Your task to perform on an android device: Open battery settings Image 0: 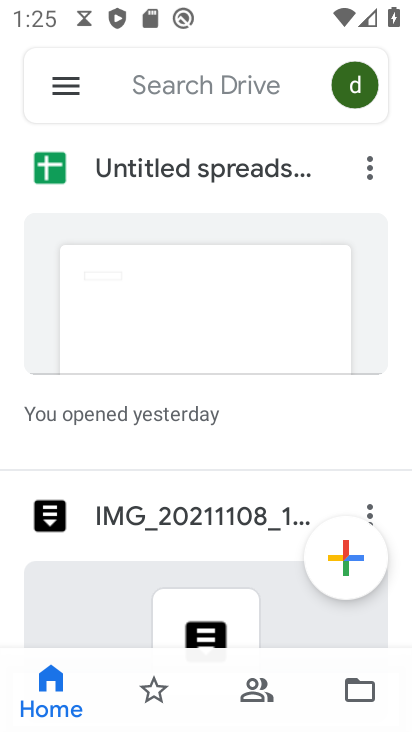
Step 0: press back button
Your task to perform on an android device: Open battery settings Image 1: 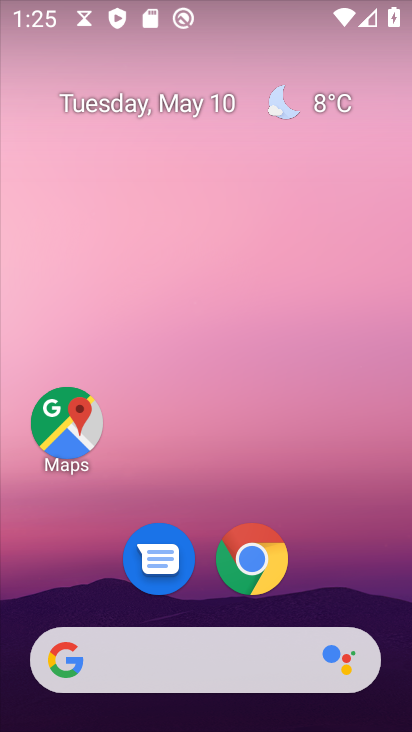
Step 1: drag from (193, 602) to (290, 69)
Your task to perform on an android device: Open battery settings Image 2: 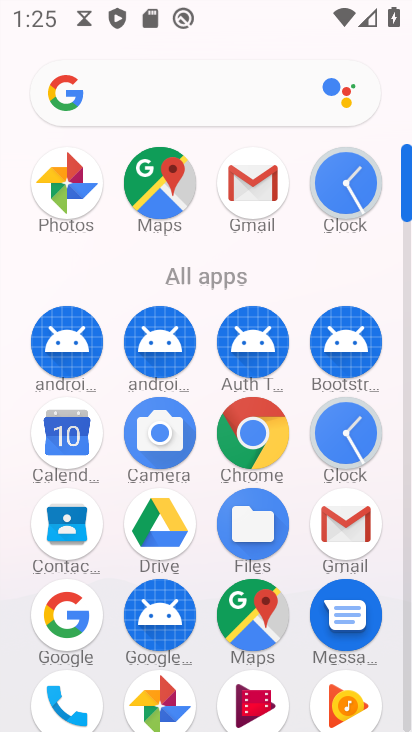
Step 2: drag from (176, 624) to (240, 423)
Your task to perform on an android device: Open battery settings Image 3: 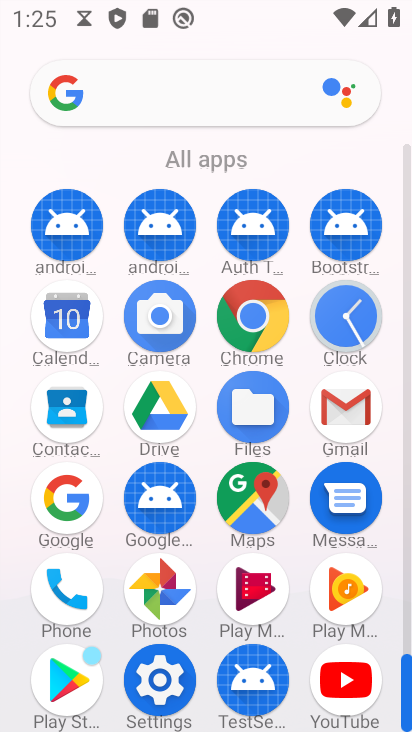
Step 3: click (164, 678)
Your task to perform on an android device: Open battery settings Image 4: 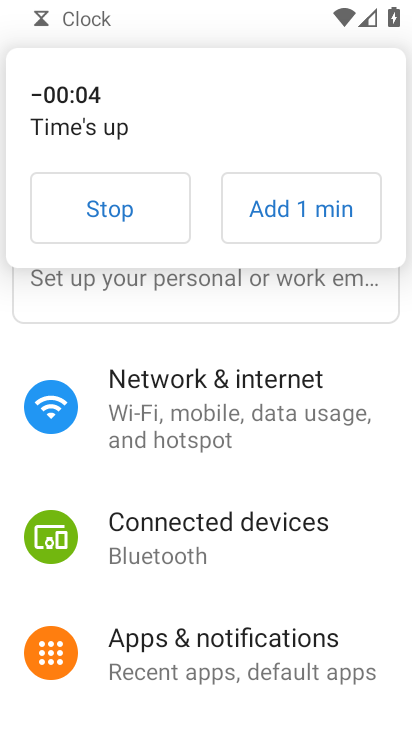
Step 4: drag from (159, 662) to (251, 366)
Your task to perform on an android device: Open battery settings Image 5: 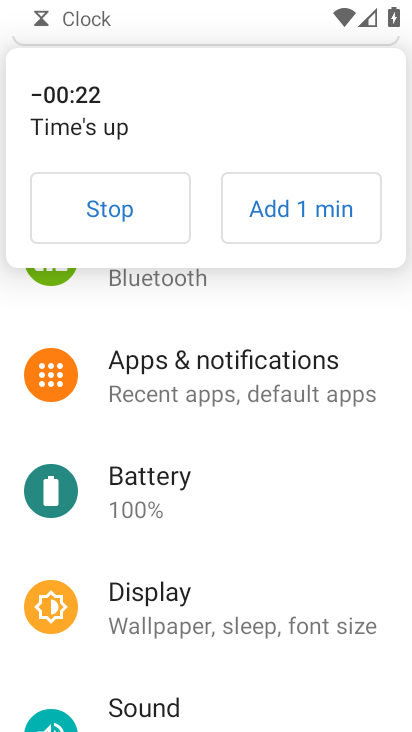
Step 5: drag from (198, 702) to (307, 294)
Your task to perform on an android device: Open battery settings Image 6: 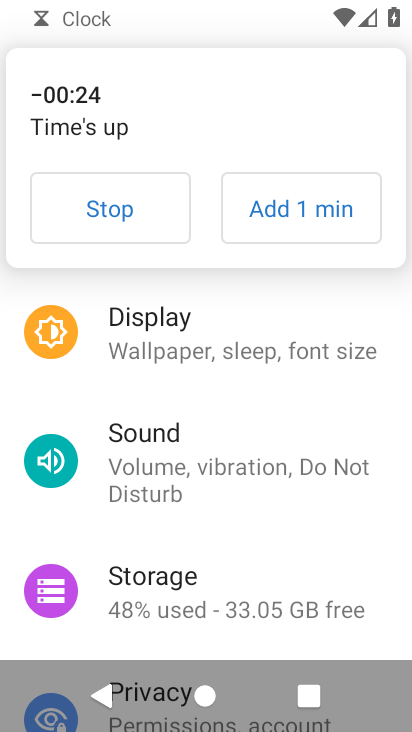
Step 6: drag from (194, 602) to (276, 292)
Your task to perform on an android device: Open battery settings Image 7: 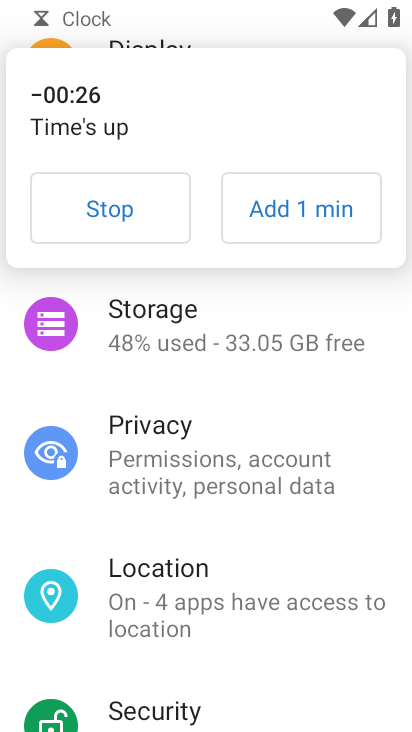
Step 7: drag from (155, 636) to (211, 655)
Your task to perform on an android device: Open battery settings Image 8: 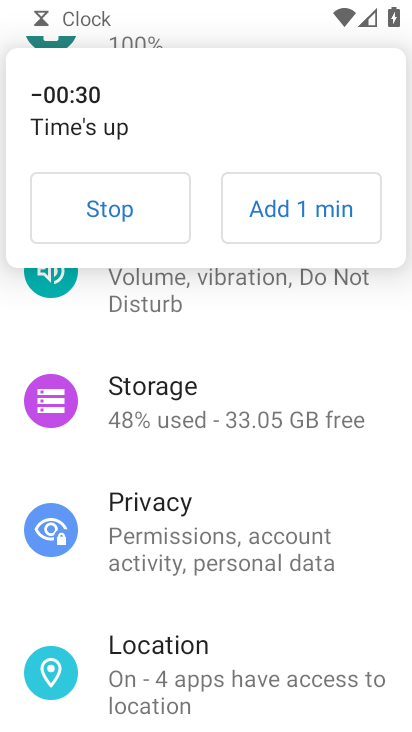
Step 8: drag from (214, 383) to (208, 593)
Your task to perform on an android device: Open battery settings Image 9: 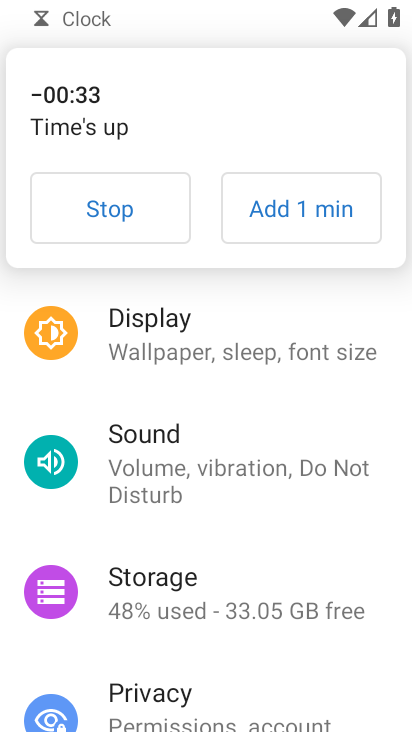
Step 9: drag from (245, 385) to (177, 635)
Your task to perform on an android device: Open battery settings Image 10: 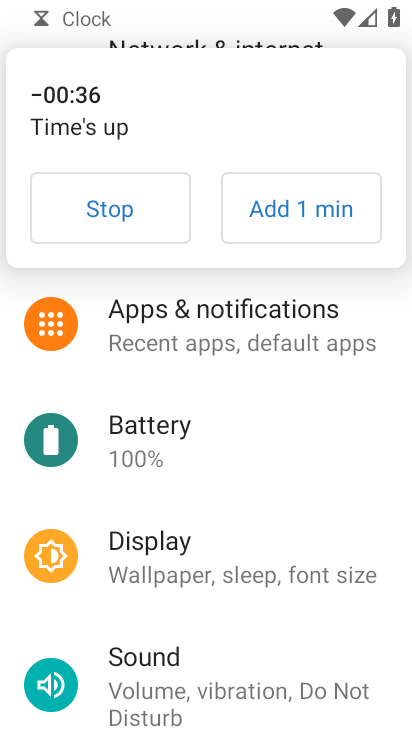
Step 10: click (184, 455)
Your task to perform on an android device: Open battery settings Image 11: 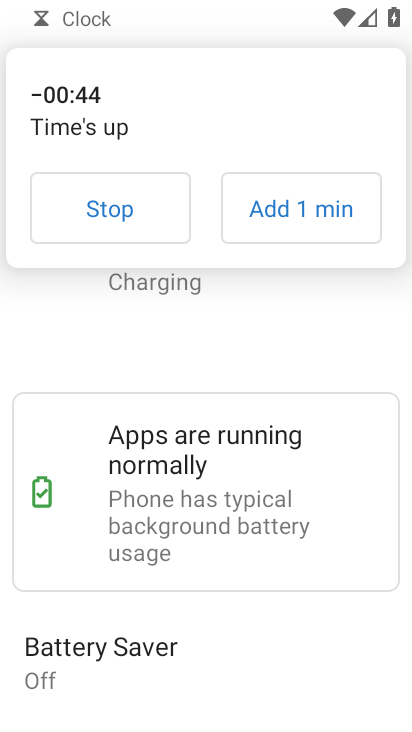
Step 11: task complete